Your task to perform on an android device: move an email to a new category in the gmail app Image 0: 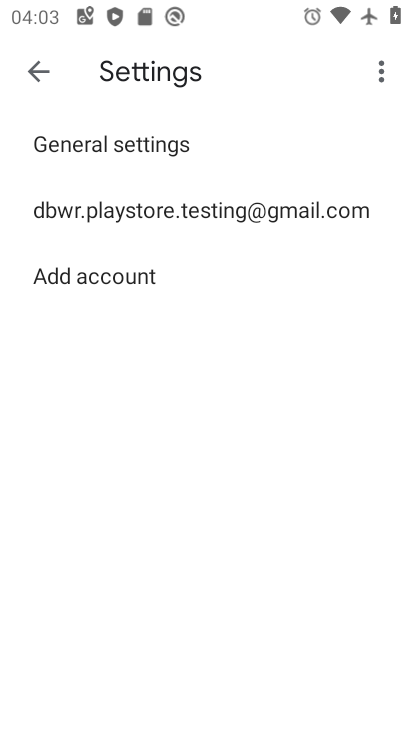
Step 0: press home button
Your task to perform on an android device: move an email to a new category in the gmail app Image 1: 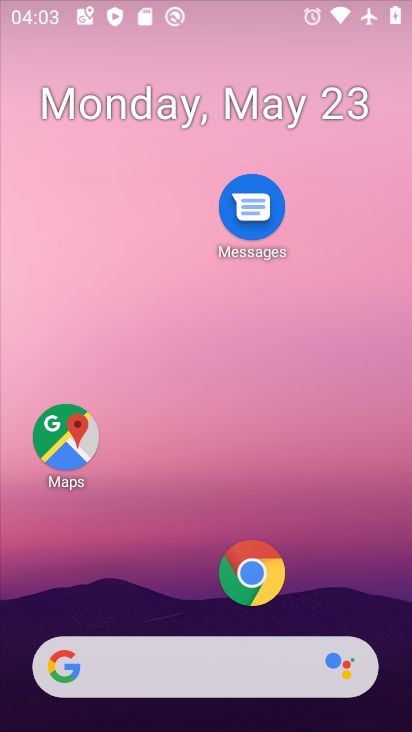
Step 1: drag from (343, 652) to (349, 25)
Your task to perform on an android device: move an email to a new category in the gmail app Image 2: 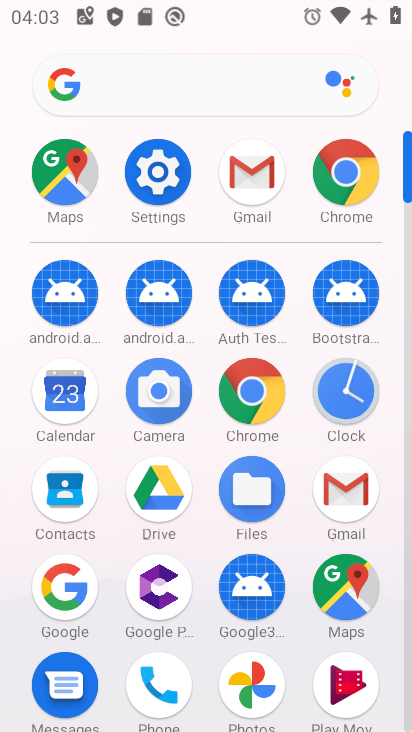
Step 2: click (346, 487)
Your task to perform on an android device: move an email to a new category in the gmail app Image 3: 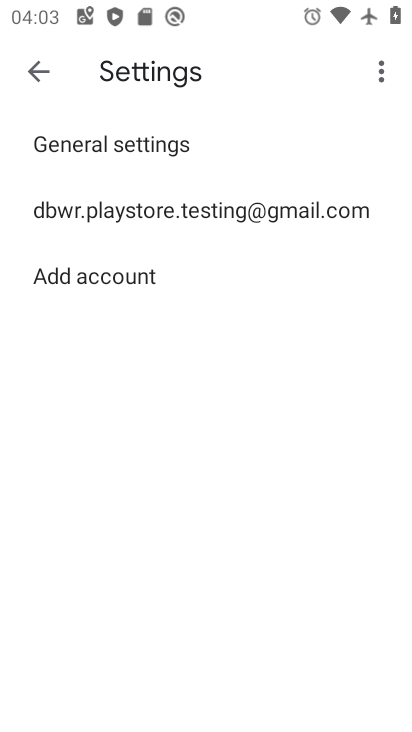
Step 3: press back button
Your task to perform on an android device: move an email to a new category in the gmail app Image 4: 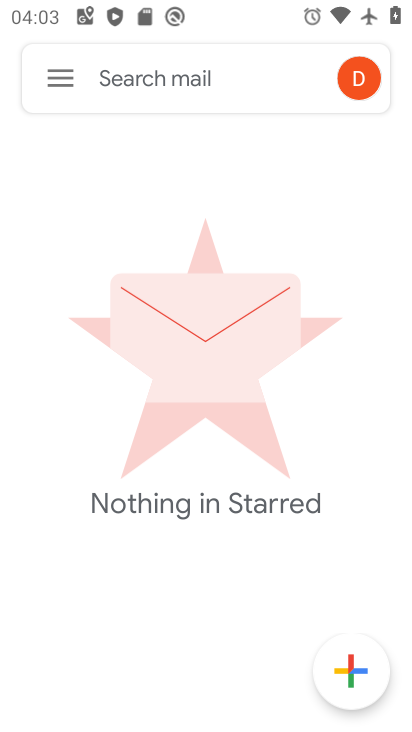
Step 4: click (44, 79)
Your task to perform on an android device: move an email to a new category in the gmail app Image 5: 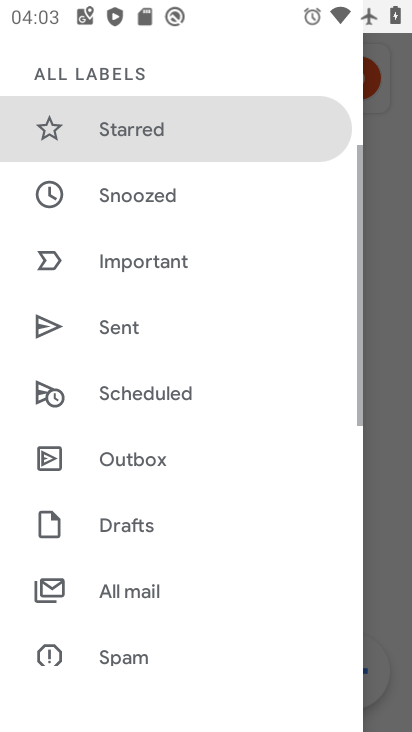
Step 5: click (142, 262)
Your task to perform on an android device: move an email to a new category in the gmail app Image 6: 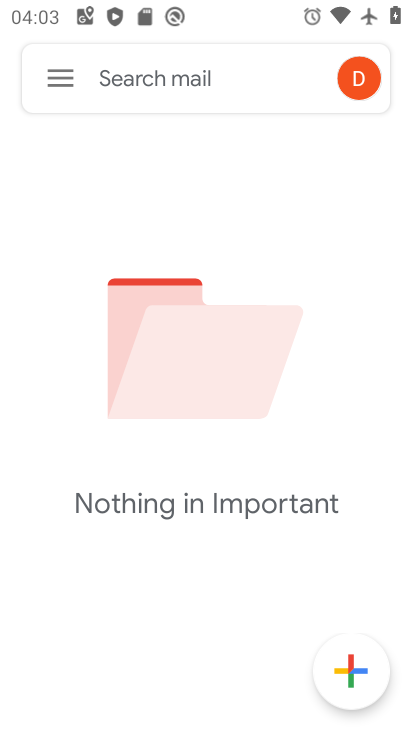
Step 6: task complete